Your task to perform on an android device: Search for "beats solo 3" on walmart, select the first entry, add it to the cart, then select checkout. Image 0: 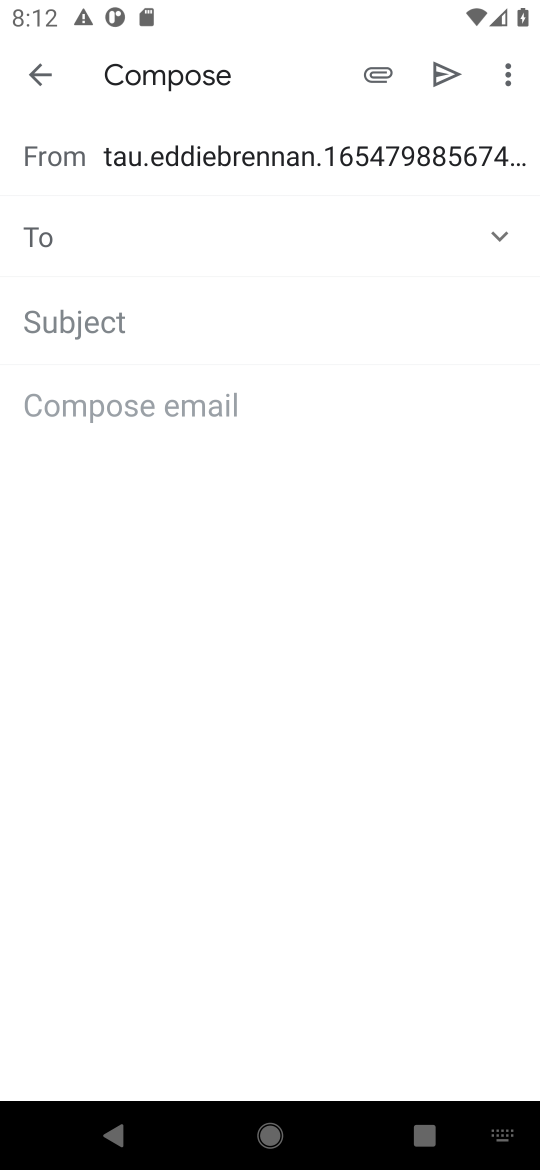
Step 0: press home button
Your task to perform on an android device: Search for "beats solo 3" on walmart, select the first entry, add it to the cart, then select checkout. Image 1: 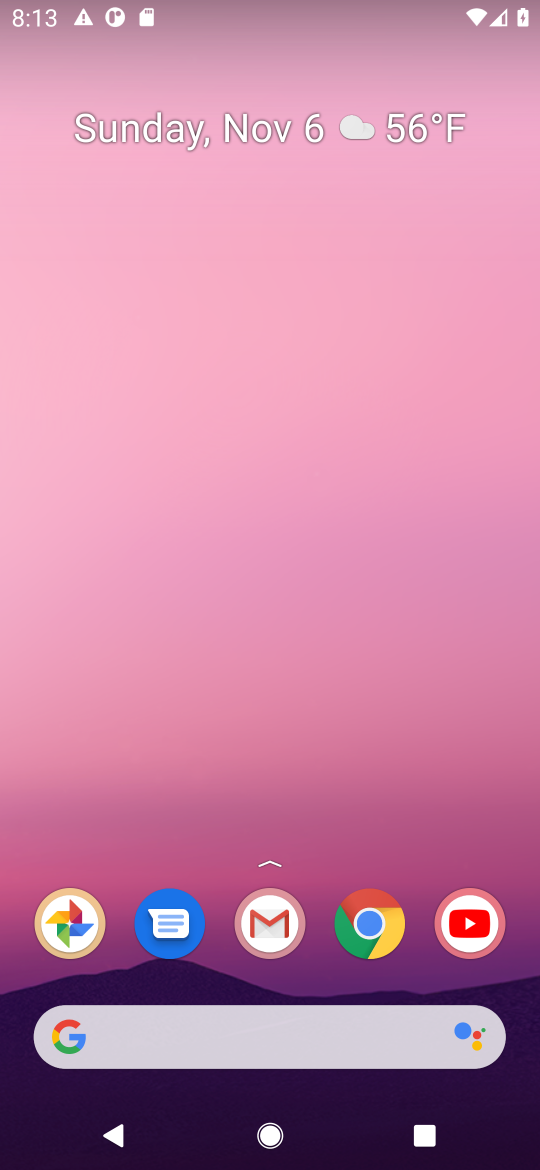
Step 1: click (365, 950)
Your task to perform on an android device: Search for "beats solo 3" on walmart, select the first entry, add it to the cart, then select checkout. Image 2: 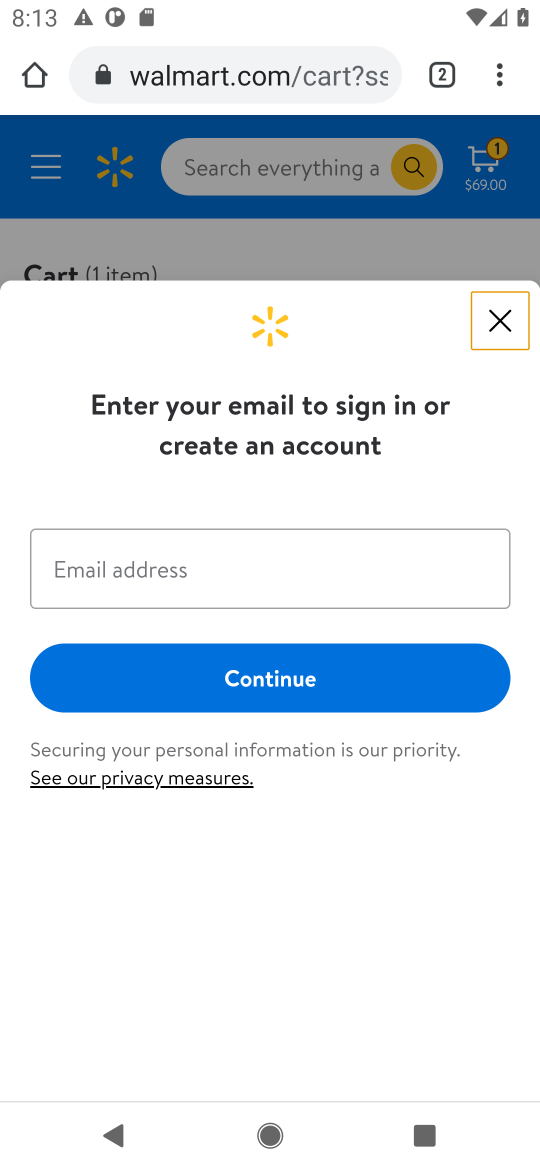
Step 2: click (489, 316)
Your task to perform on an android device: Search for "beats solo 3" on walmart, select the first entry, add it to the cart, then select checkout. Image 3: 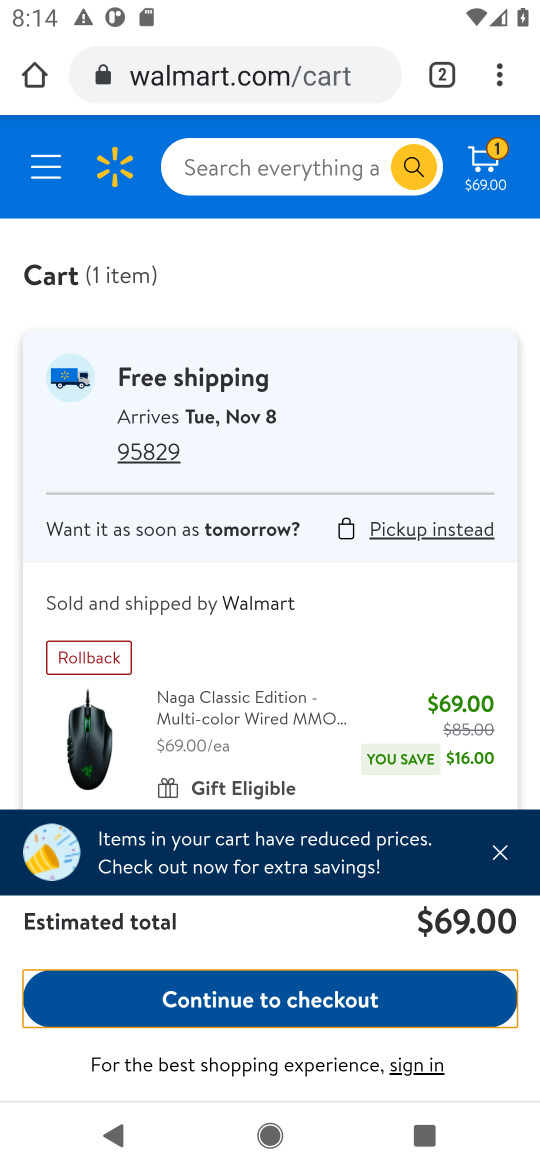
Step 3: click (264, 181)
Your task to perform on an android device: Search for "beats solo 3" on walmart, select the first entry, add it to the cart, then select checkout. Image 4: 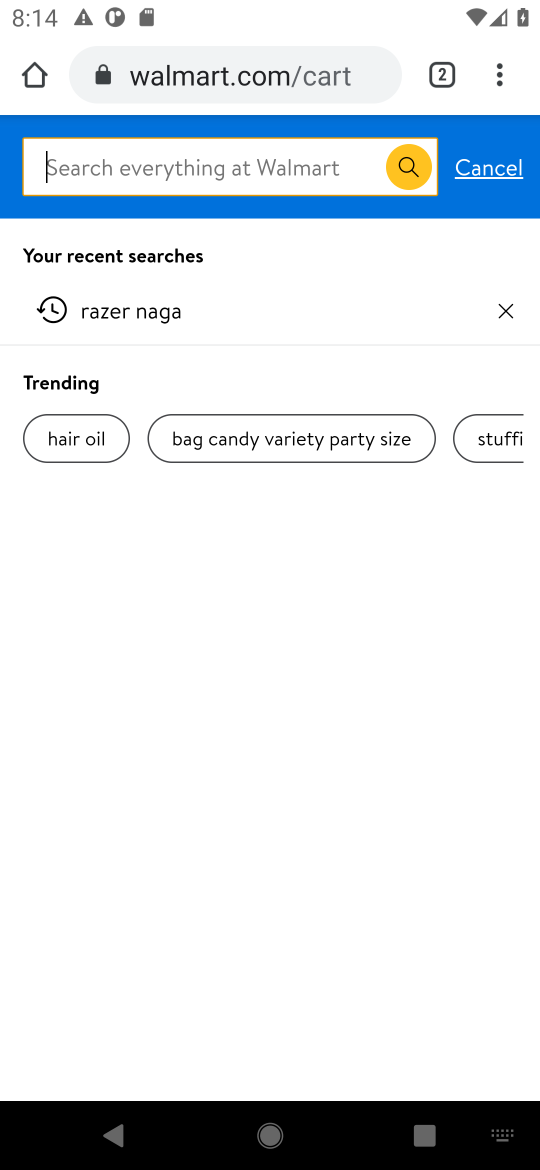
Step 4: type "beats solo 3"
Your task to perform on an android device: Search for "beats solo 3" on walmart, select the first entry, add it to the cart, then select checkout. Image 5: 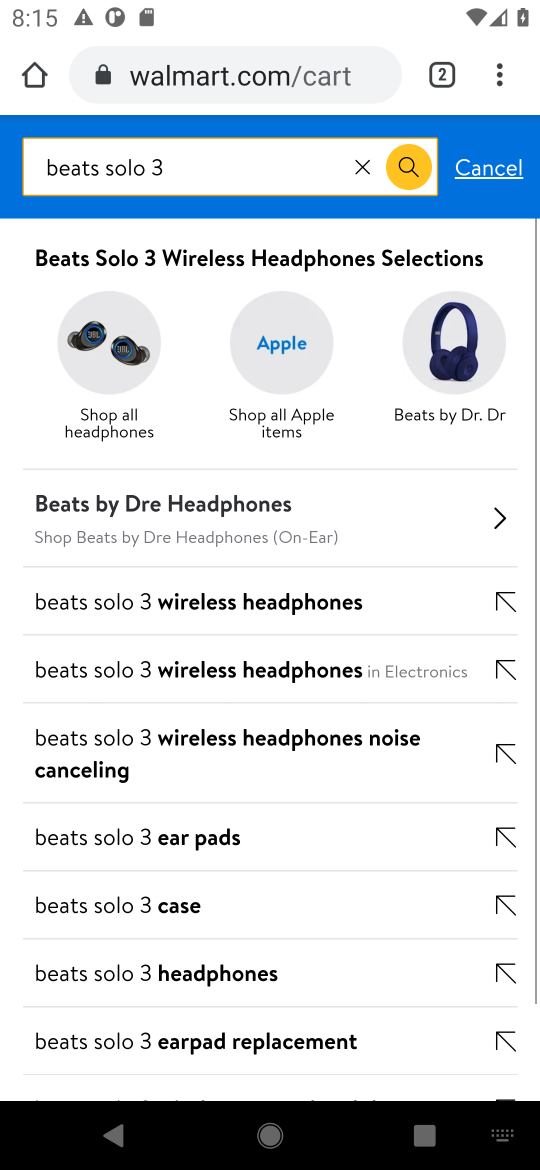
Step 5: click (413, 173)
Your task to perform on an android device: Search for "beats solo 3" on walmart, select the first entry, add it to the cart, then select checkout. Image 6: 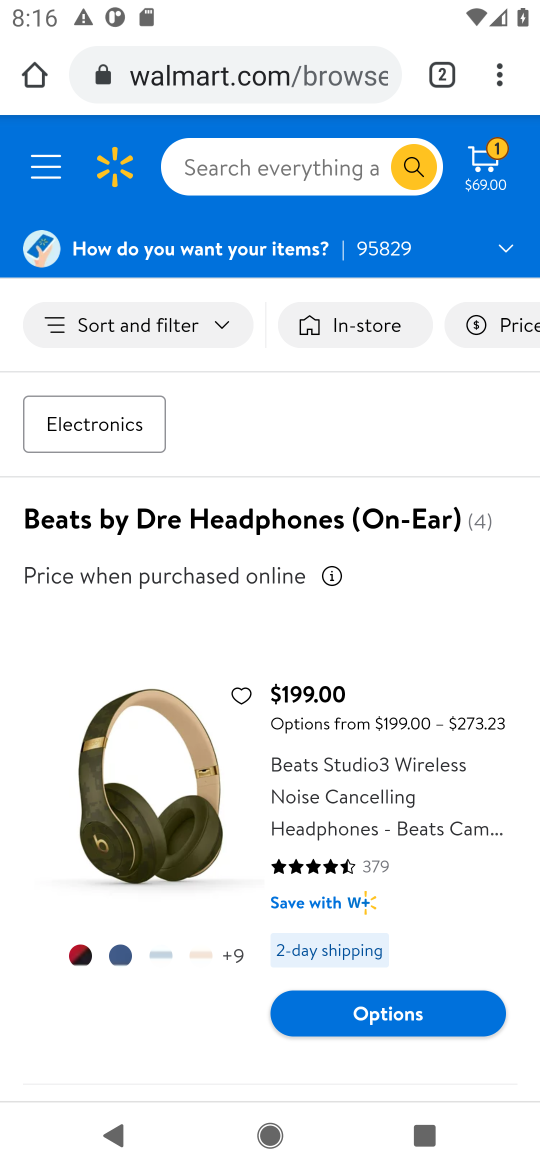
Step 6: task complete